Your task to perform on an android device: clear all cookies in the chrome app Image 0: 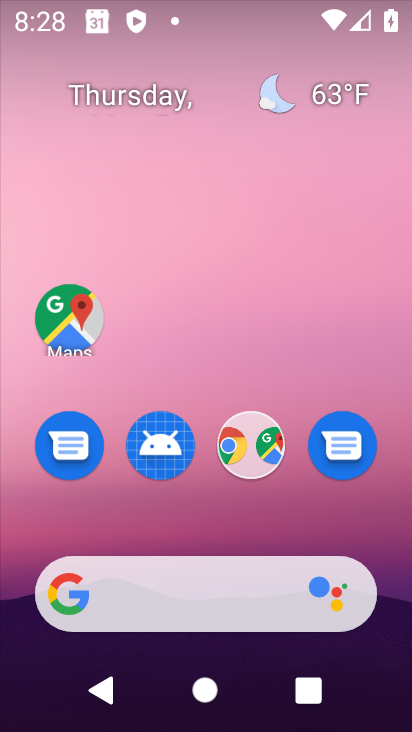
Step 0: drag from (227, 542) to (158, 36)
Your task to perform on an android device: clear all cookies in the chrome app Image 1: 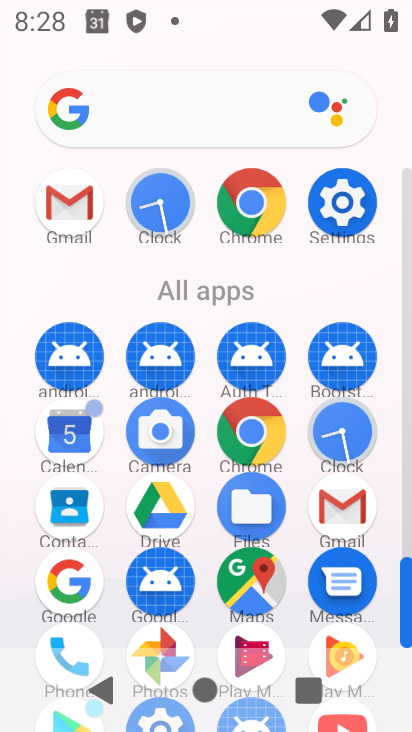
Step 1: click (252, 424)
Your task to perform on an android device: clear all cookies in the chrome app Image 2: 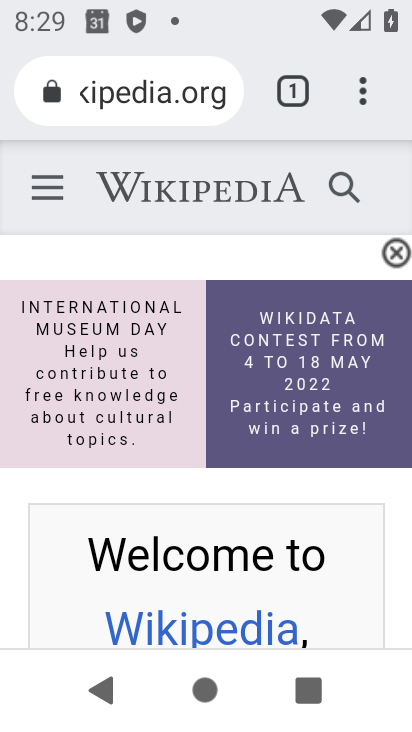
Step 2: click (362, 103)
Your task to perform on an android device: clear all cookies in the chrome app Image 3: 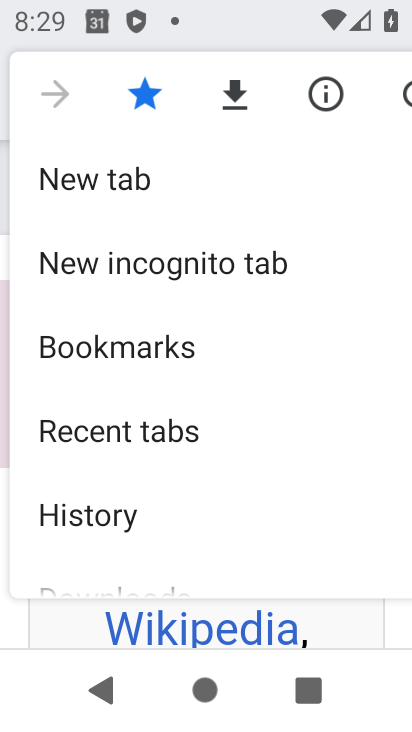
Step 3: drag from (127, 546) to (93, 159)
Your task to perform on an android device: clear all cookies in the chrome app Image 4: 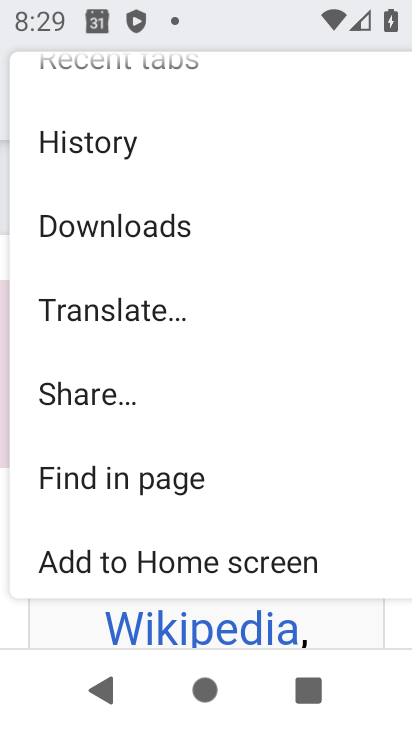
Step 4: drag from (143, 554) to (115, 137)
Your task to perform on an android device: clear all cookies in the chrome app Image 5: 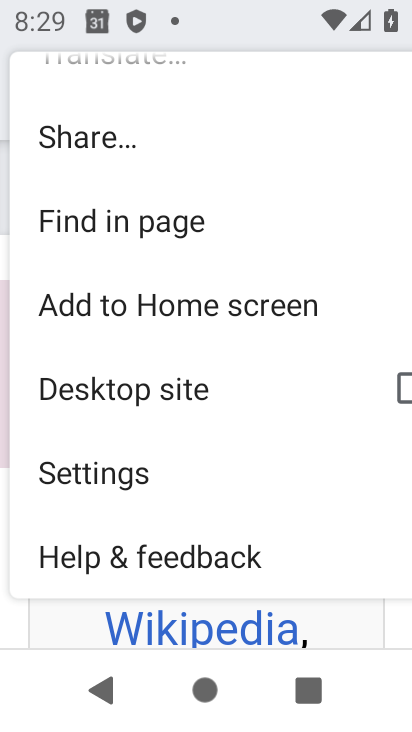
Step 5: click (78, 488)
Your task to perform on an android device: clear all cookies in the chrome app Image 6: 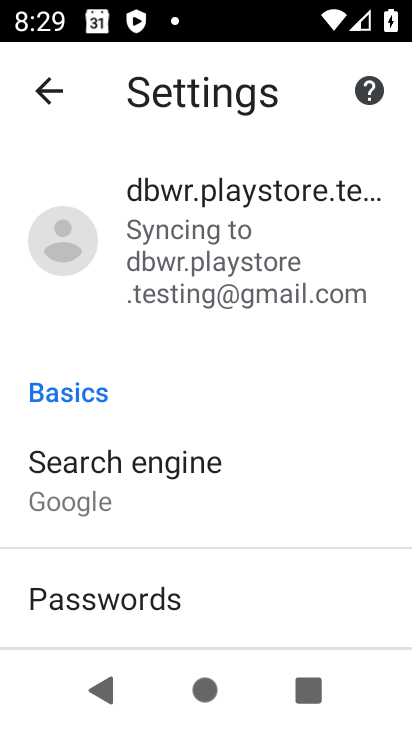
Step 6: drag from (167, 558) to (88, 111)
Your task to perform on an android device: clear all cookies in the chrome app Image 7: 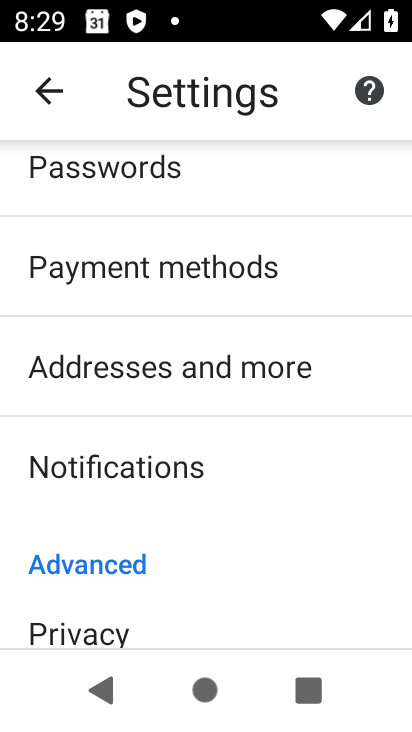
Step 7: click (58, 637)
Your task to perform on an android device: clear all cookies in the chrome app Image 8: 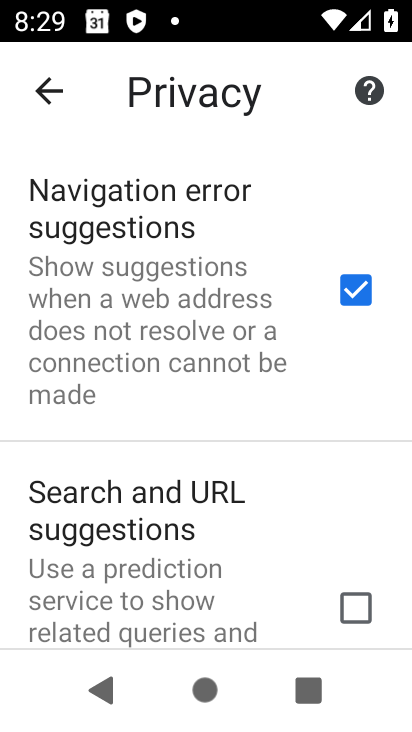
Step 8: drag from (142, 502) to (108, 58)
Your task to perform on an android device: clear all cookies in the chrome app Image 9: 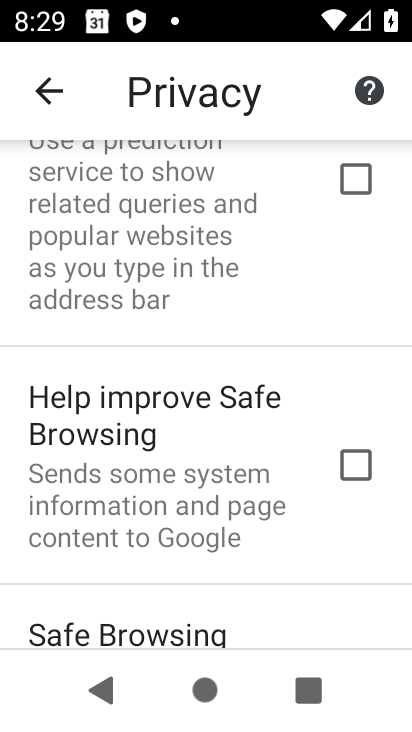
Step 9: drag from (185, 465) to (143, 41)
Your task to perform on an android device: clear all cookies in the chrome app Image 10: 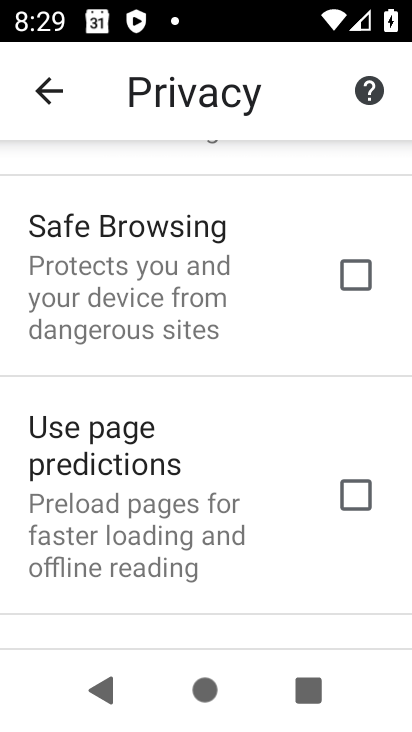
Step 10: drag from (173, 519) to (121, 57)
Your task to perform on an android device: clear all cookies in the chrome app Image 11: 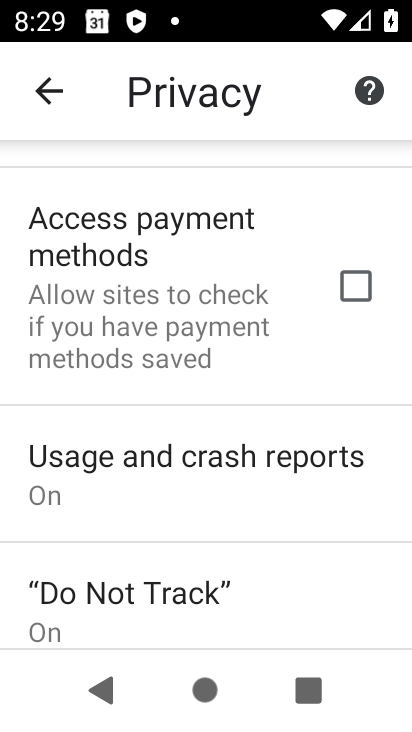
Step 11: drag from (239, 490) to (159, 97)
Your task to perform on an android device: clear all cookies in the chrome app Image 12: 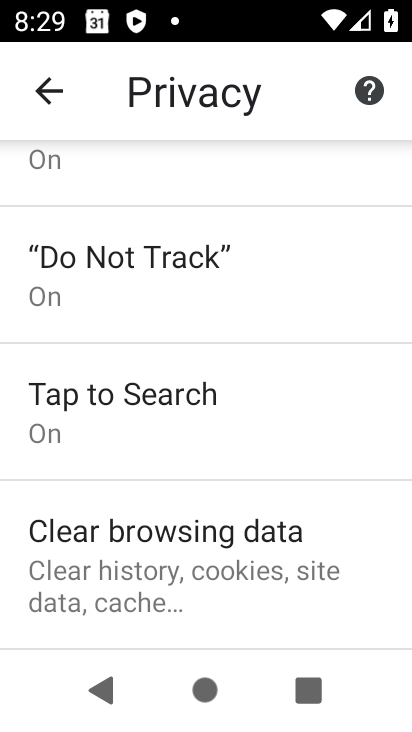
Step 12: click (183, 493)
Your task to perform on an android device: clear all cookies in the chrome app Image 13: 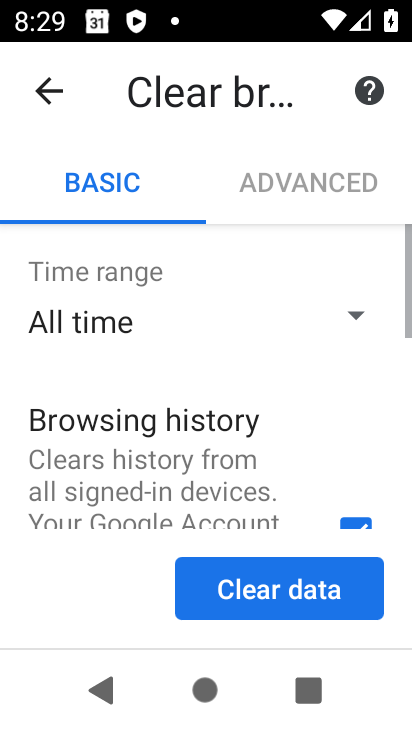
Step 13: drag from (183, 493) to (147, 112)
Your task to perform on an android device: clear all cookies in the chrome app Image 14: 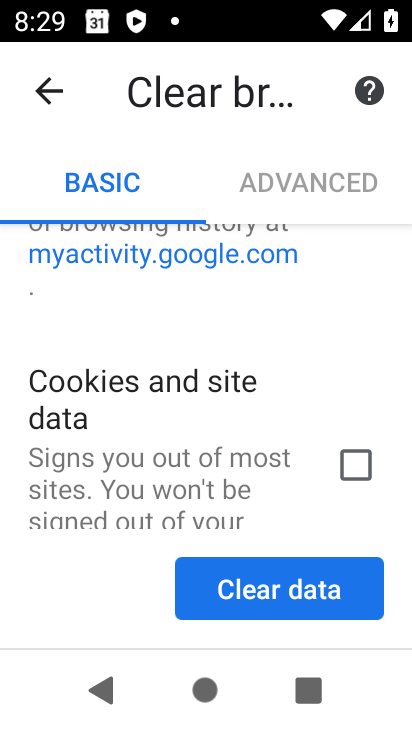
Step 14: click (339, 461)
Your task to perform on an android device: clear all cookies in the chrome app Image 15: 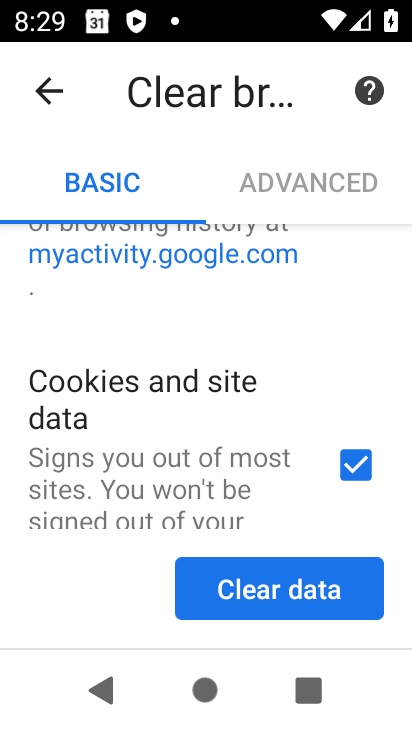
Step 15: click (326, 570)
Your task to perform on an android device: clear all cookies in the chrome app Image 16: 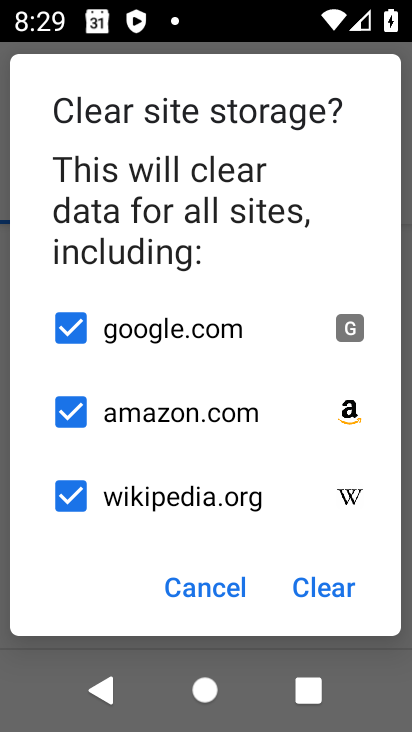
Step 16: click (321, 588)
Your task to perform on an android device: clear all cookies in the chrome app Image 17: 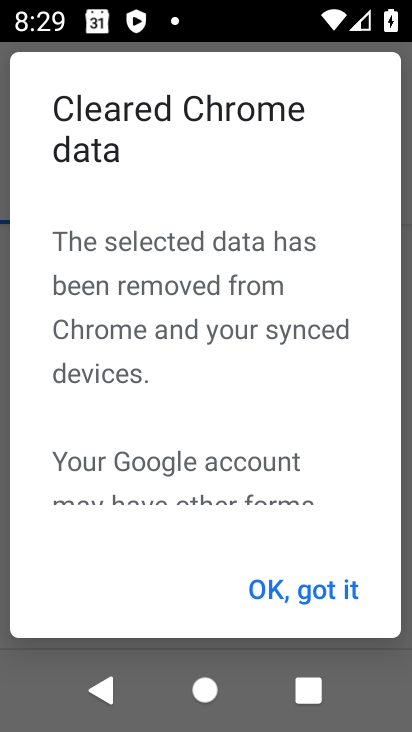
Step 17: click (342, 590)
Your task to perform on an android device: clear all cookies in the chrome app Image 18: 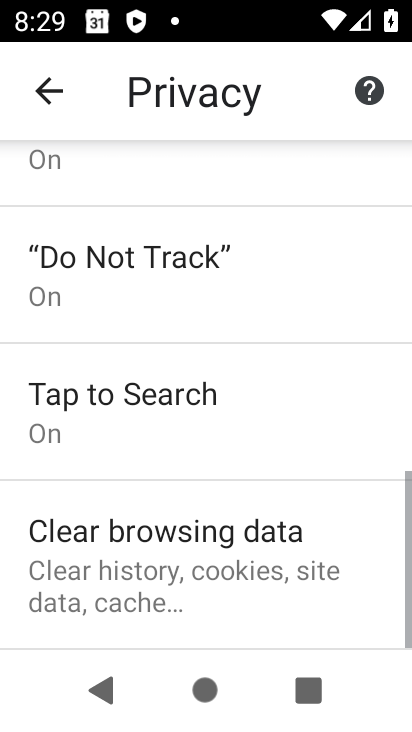
Step 18: task complete